Your task to perform on an android device: What time is it in Paris? Image 0: 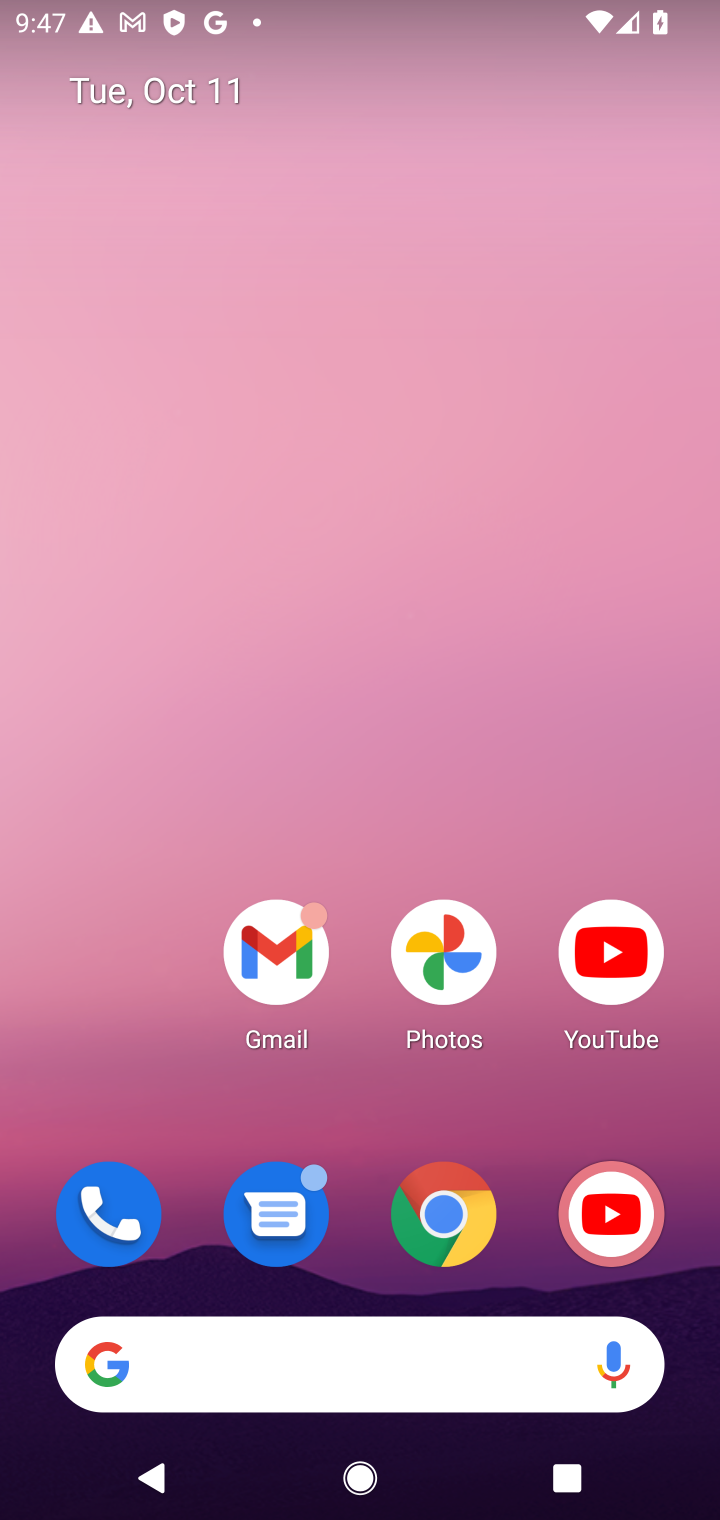
Step 0: drag from (365, 1140) to (418, 149)
Your task to perform on an android device: What time is it in Paris? Image 1: 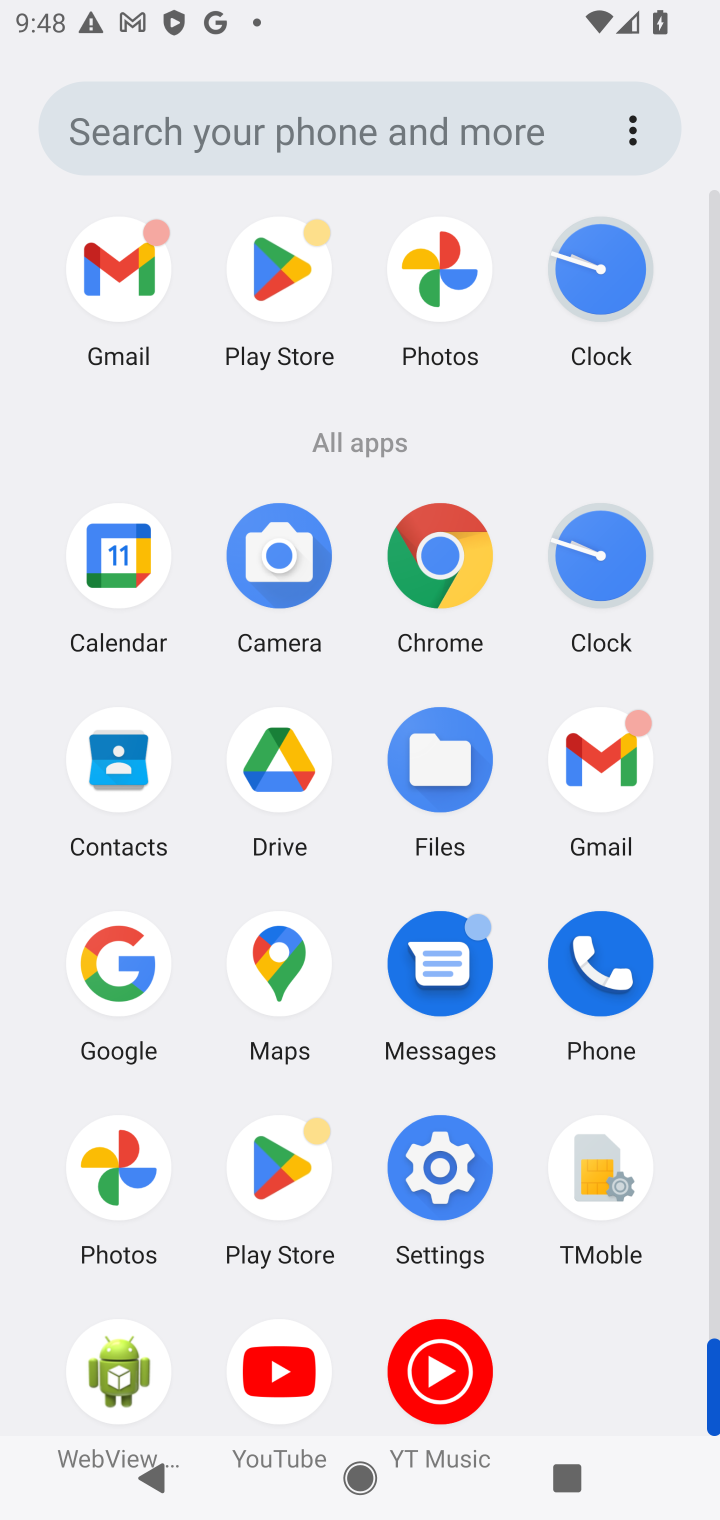
Step 1: click (440, 549)
Your task to perform on an android device: What time is it in Paris? Image 2: 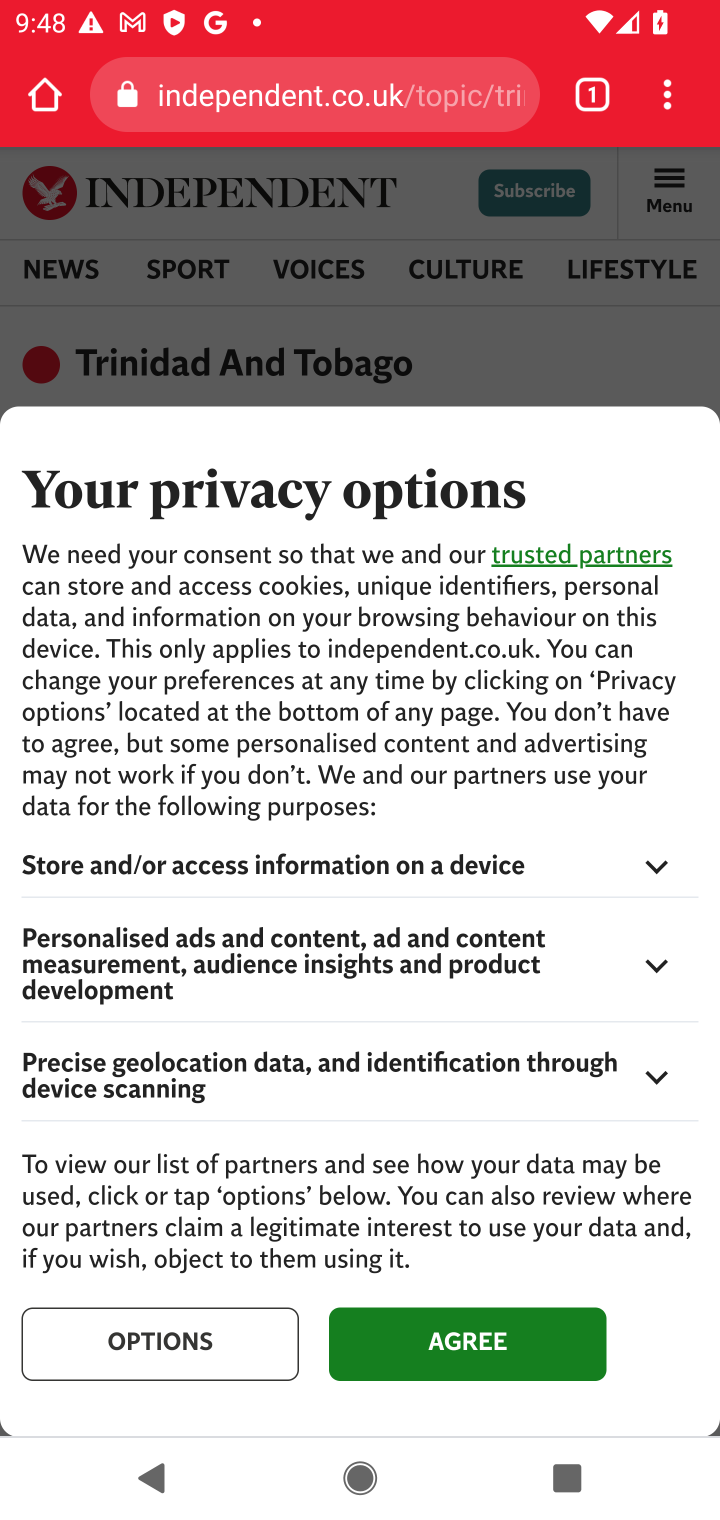
Step 2: click (398, 84)
Your task to perform on an android device: What time is it in Paris? Image 3: 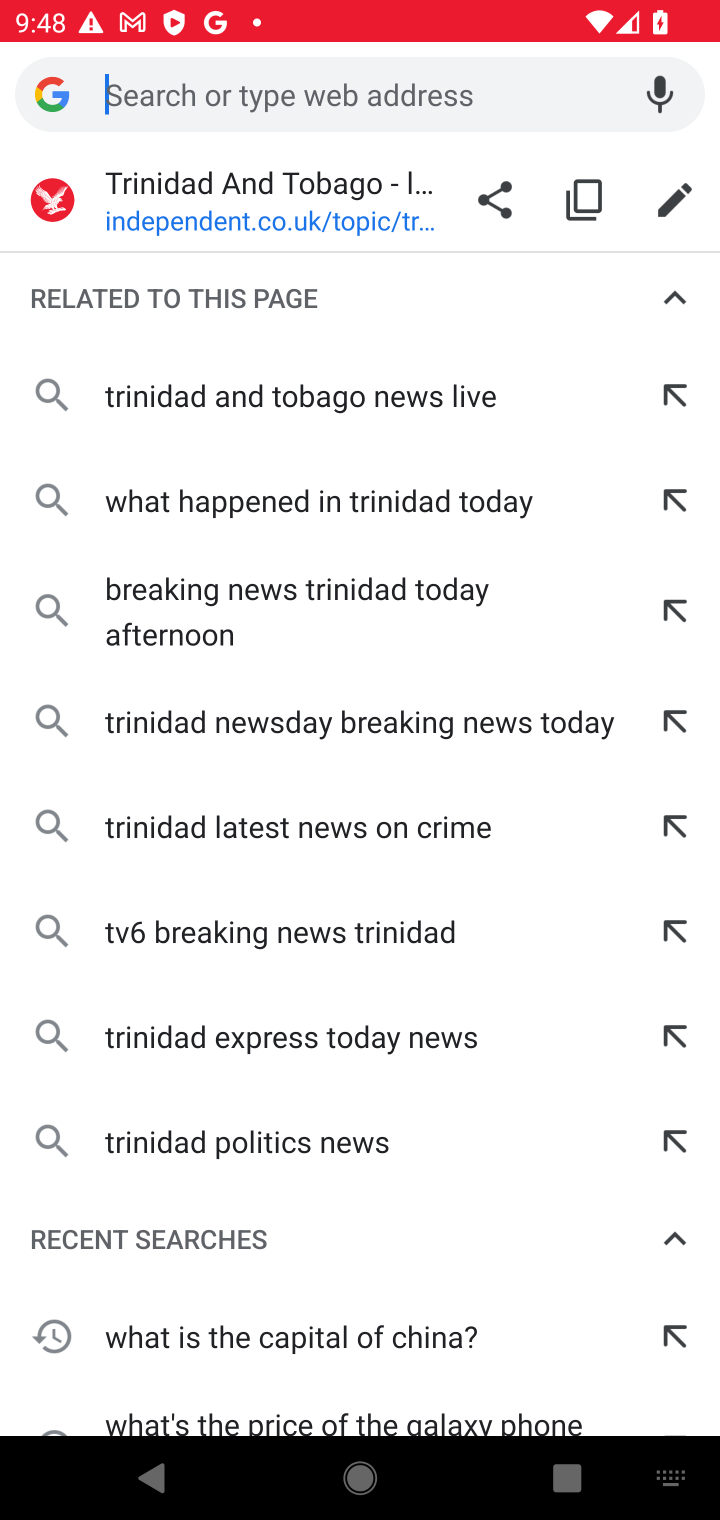
Step 3: type "What time is it in Paris?"
Your task to perform on an android device: What time is it in Paris? Image 4: 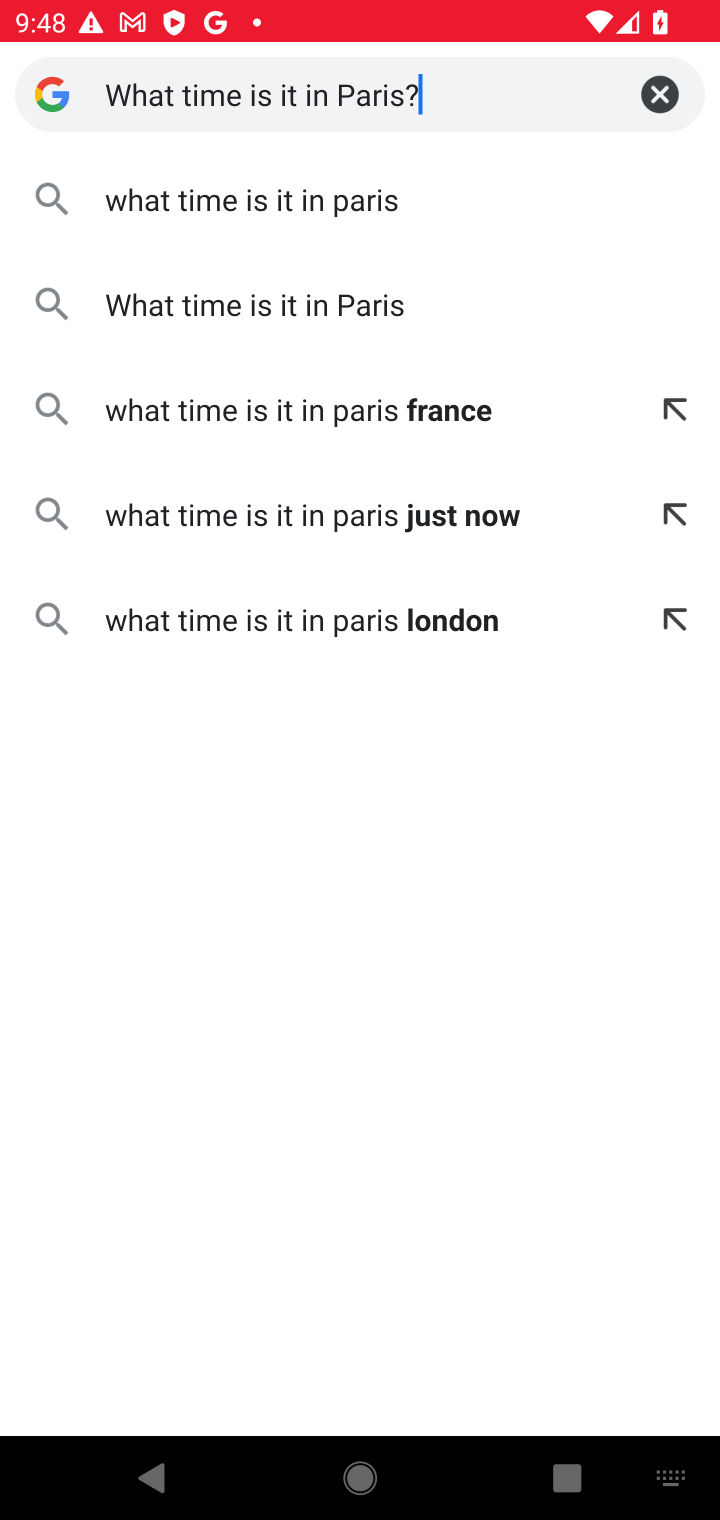
Step 4: press enter
Your task to perform on an android device: What time is it in Paris? Image 5: 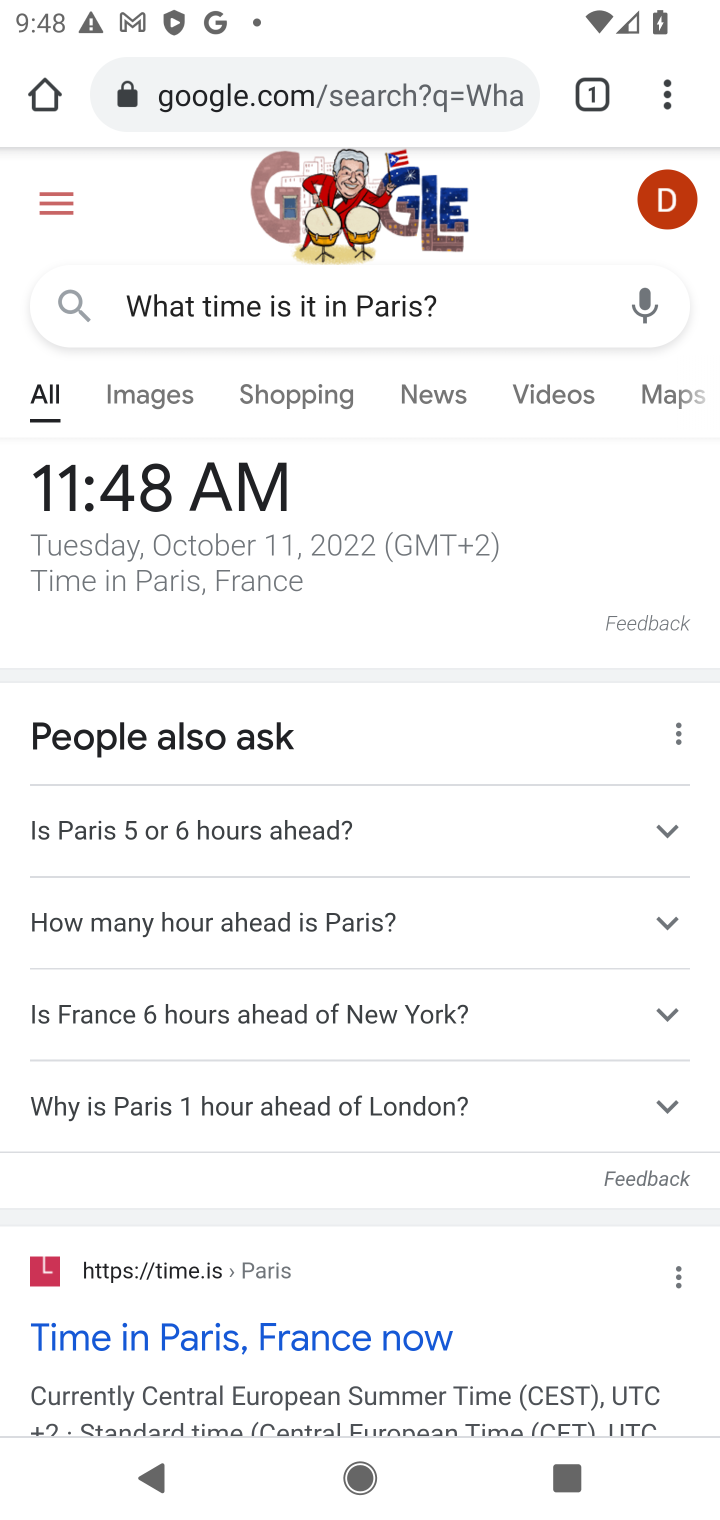
Step 5: task complete